Your task to perform on an android device: change alarm snooze length Image 0: 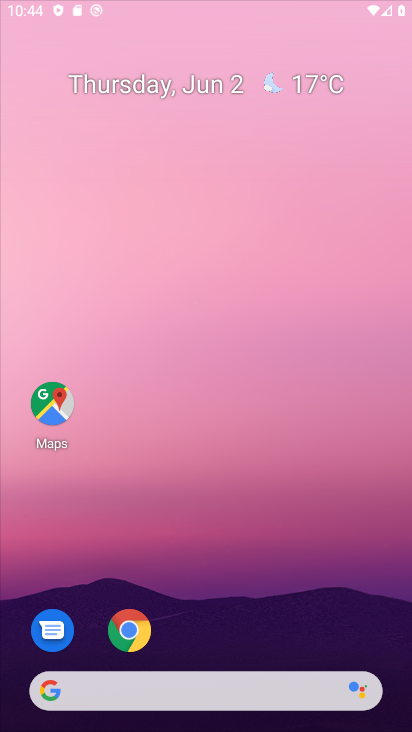
Step 0: drag from (247, 638) to (290, 44)
Your task to perform on an android device: change alarm snooze length Image 1: 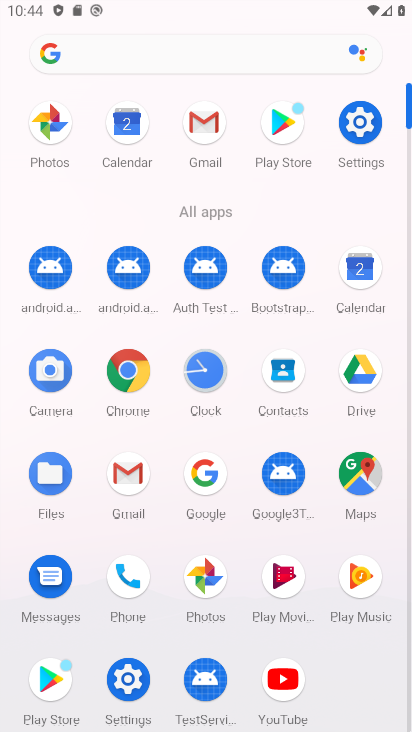
Step 1: click (208, 389)
Your task to perform on an android device: change alarm snooze length Image 2: 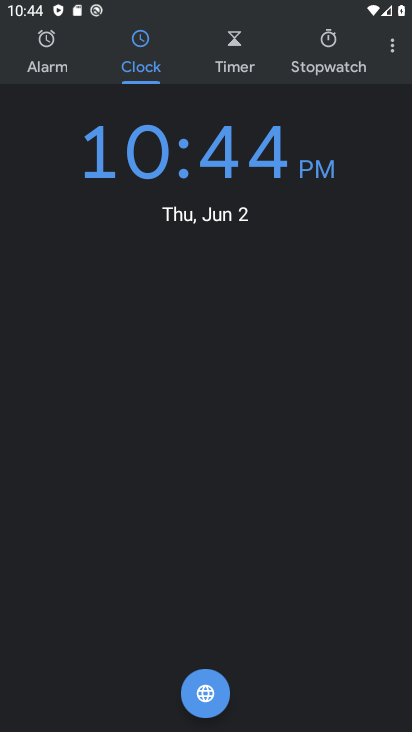
Step 2: click (391, 47)
Your task to perform on an android device: change alarm snooze length Image 3: 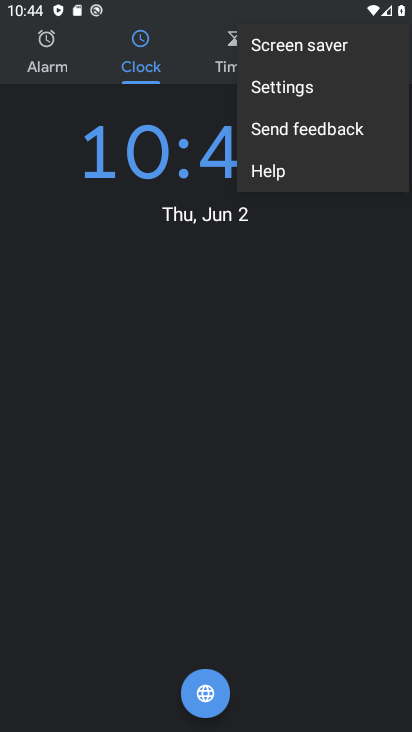
Step 3: click (273, 90)
Your task to perform on an android device: change alarm snooze length Image 4: 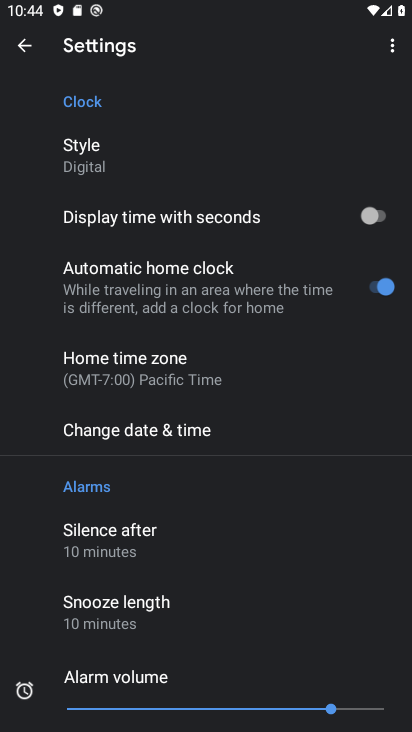
Step 4: drag from (135, 558) to (157, 388)
Your task to perform on an android device: change alarm snooze length Image 5: 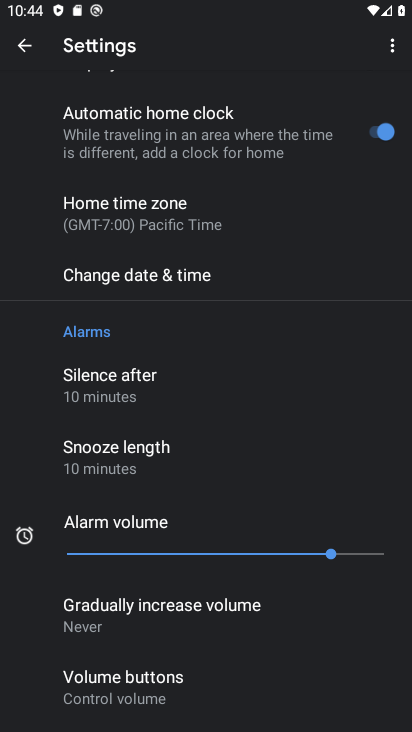
Step 5: click (135, 463)
Your task to perform on an android device: change alarm snooze length Image 6: 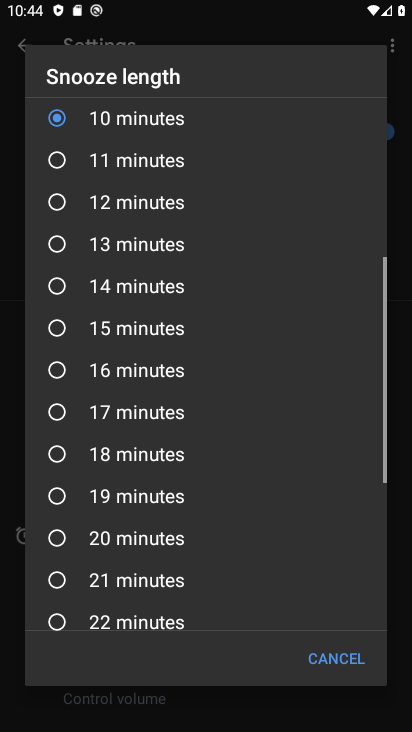
Step 6: click (101, 336)
Your task to perform on an android device: change alarm snooze length Image 7: 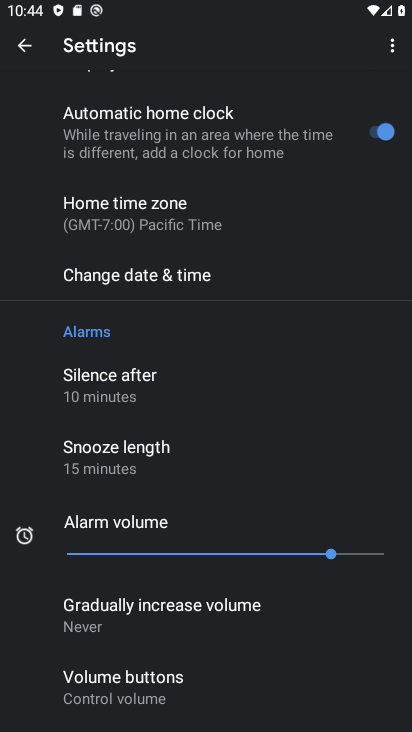
Step 7: task complete